Your task to perform on an android device: Open Youtube and go to "Your channel" Image 0: 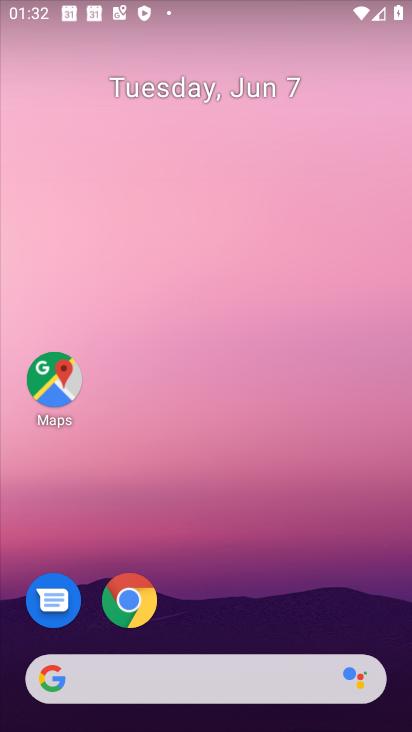
Step 0: drag from (182, 729) to (184, 90)
Your task to perform on an android device: Open Youtube and go to "Your channel" Image 1: 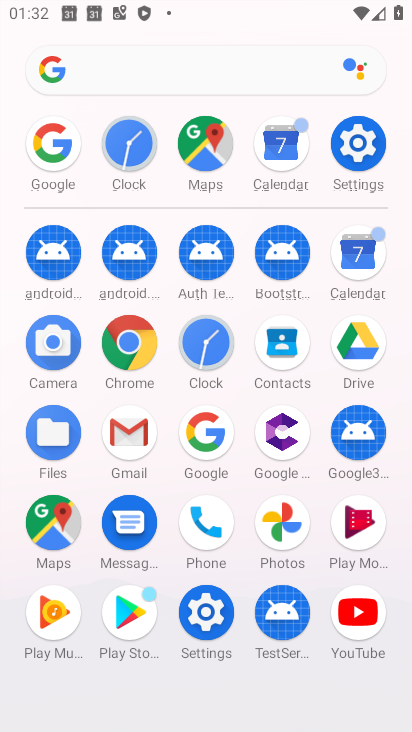
Step 1: click (354, 618)
Your task to perform on an android device: Open Youtube and go to "Your channel" Image 2: 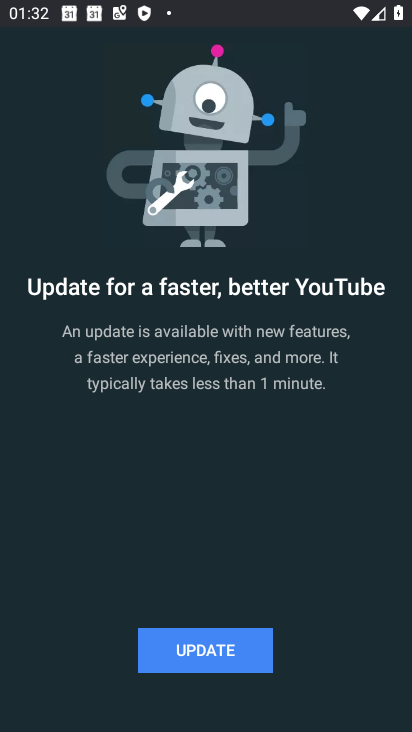
Step 2: click (225, 655)
Your task to perform on an android device: Open Youtube and go to "Your channel" Image 3: 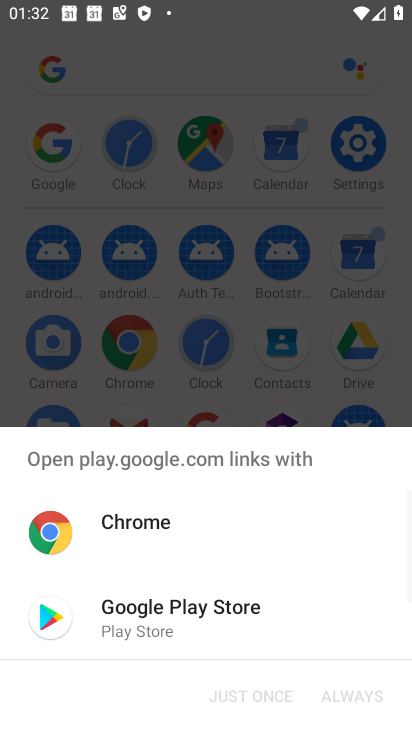
Step 3: click (152, 612)
Your task to perform on an android device: Open Youtube and go to "Your channel" Image 4: 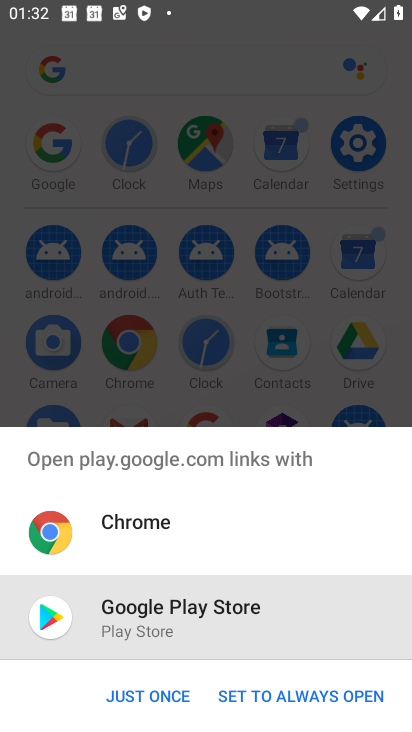
Step 4: click (152, 693)
Your task to perform on an android device: Open Youtube and go to "Your channel" Image 5: 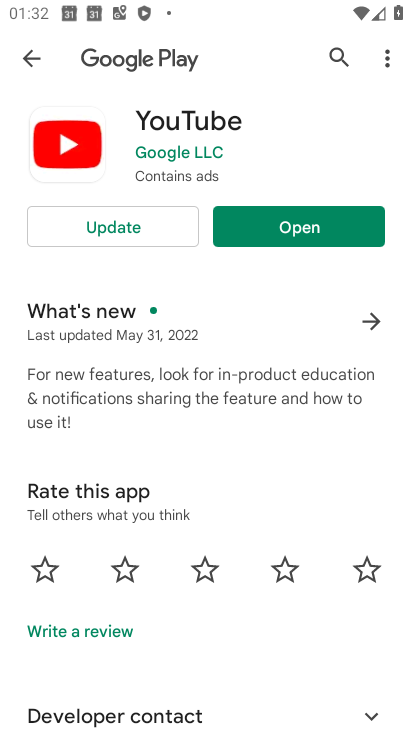
Step 5: click (135, 222)
Your task to perform on an android device: Open Youtube and go to "Your channel" Image 6: 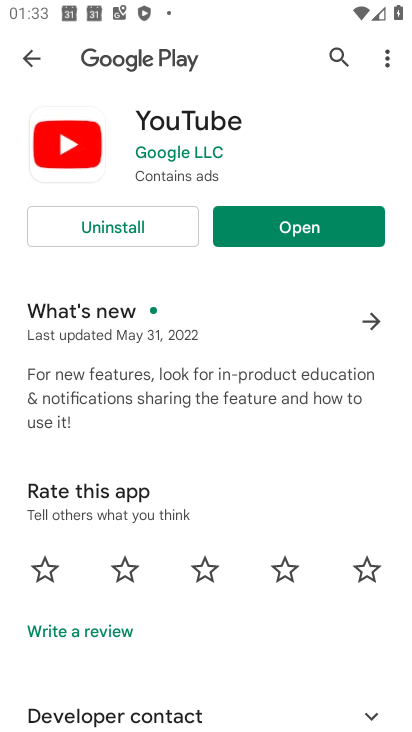
Step 6: click (302, 226)
Your task to perform on an android device: Open Youtube and go to "Your channel" Image 7: 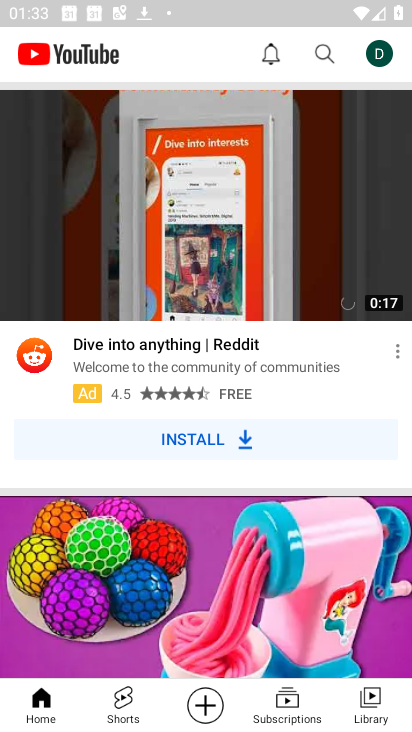
Step 7: click (378, 52)
Your task to perform on an android device: Open Youtube and go to "Your channel" Image 8: 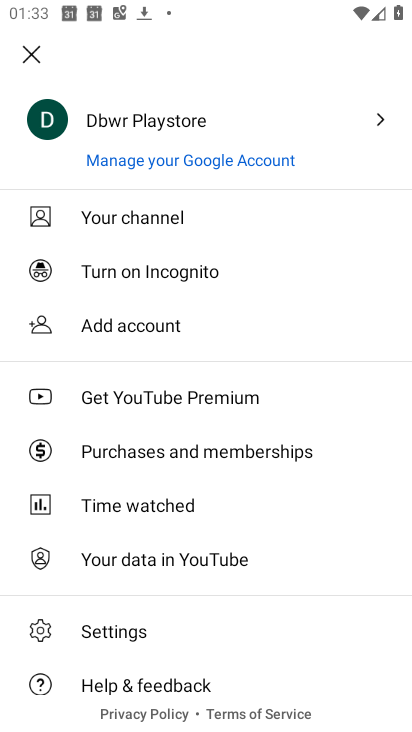
Step 8: click (142, 215)
Your task to perform on an android device: Open Youtube and go to "Your channel" Image 9: 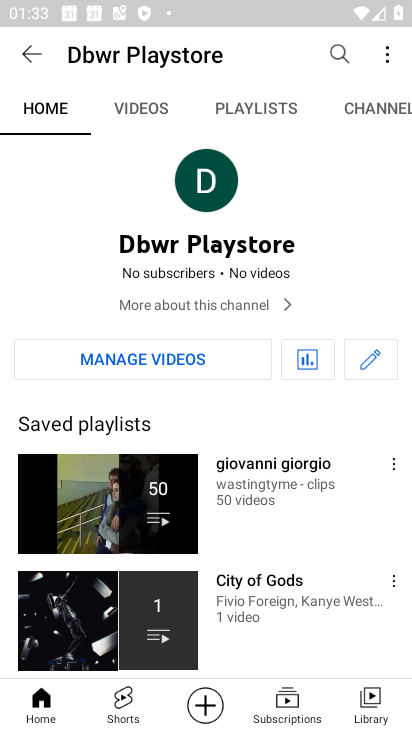
Step 9: task complete